Your task to perform on an android device: check android version Image 0: 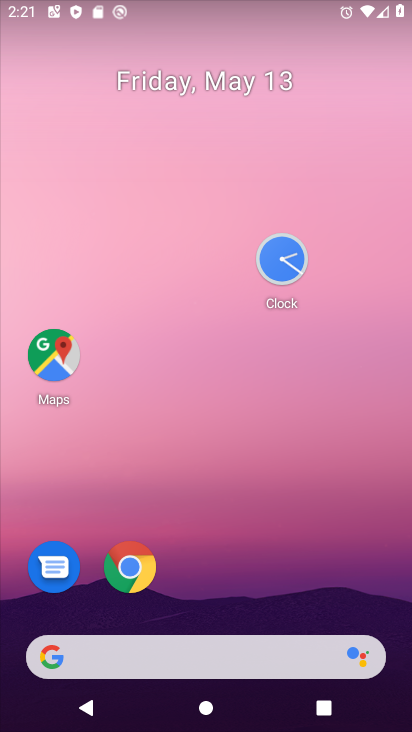
Step 0: drag from (281, 606) to (257, 161)
Your task to perform on an android device: check android version Image 1: 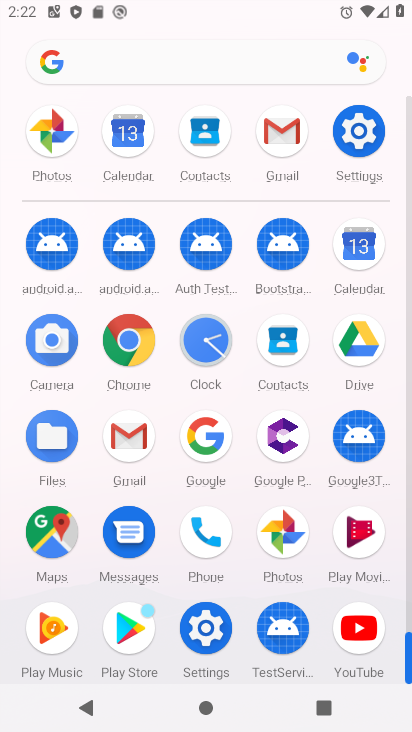
Step 1: click (209, 637)
Your task to perform on an android device: check android version Image 2: 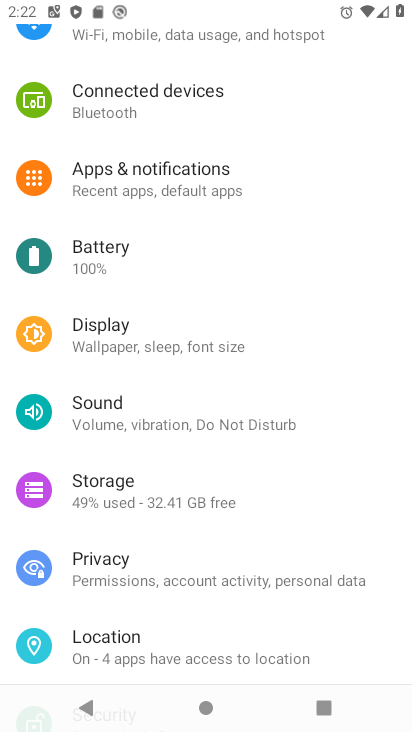
Step 2: drag from (178, 629) to (237, 149)
Your task to perform on an android device: check android version Image 3: 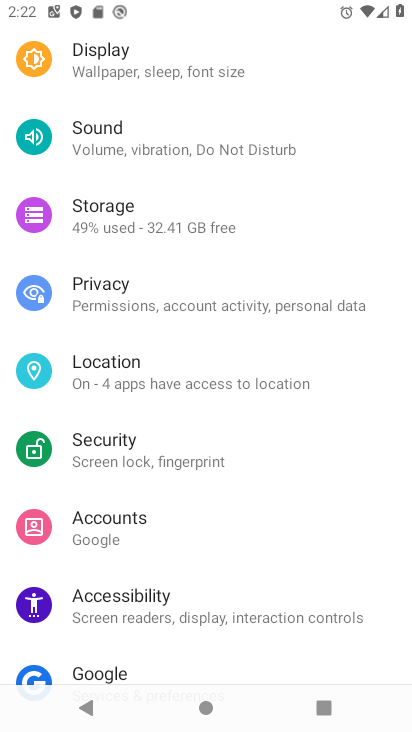
Step 3: drag from (237, 559) to (258, 247)
Your task to perform on an android device: check android version Image 4: 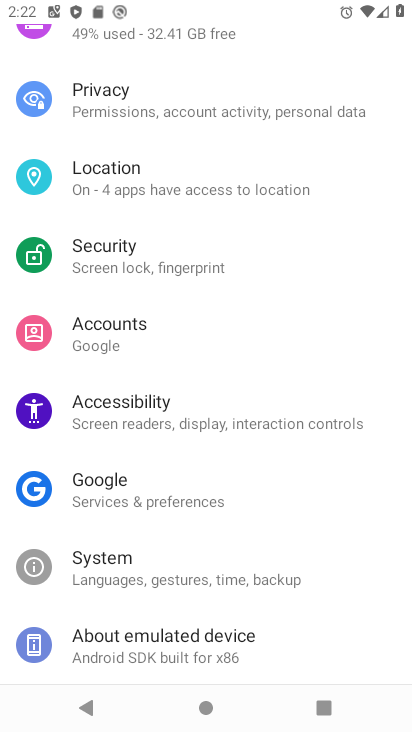
Step 4: click (228, 638)
Your task to perform on an android device: check android version Image 5: 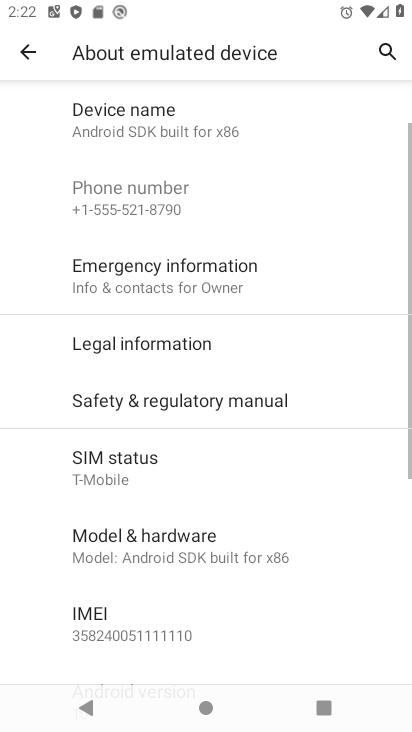
Step 5: drag from (162, 426) to (218, 141)
Your task to perform on an android device: check android version Image 6: 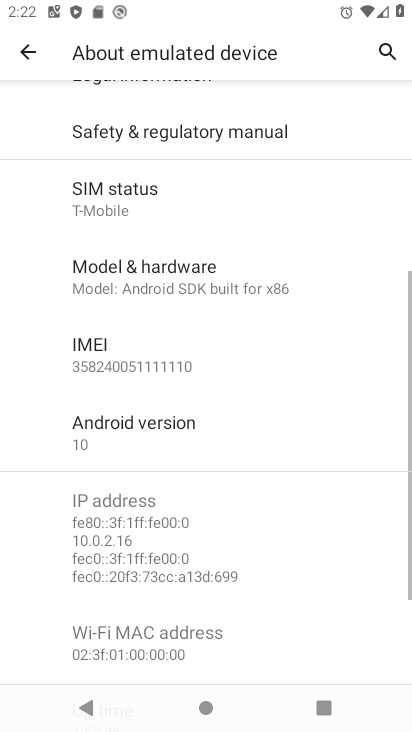
Step 6: click (233, 450)
Your task to perform on an android device: check android version Image 7: 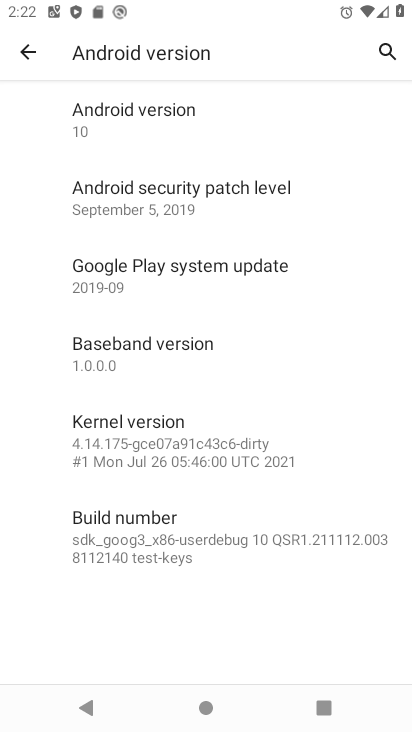
Step 7: task complete